Your task to perform on an android device: Show me productivity apps on the Play Store Image 0: 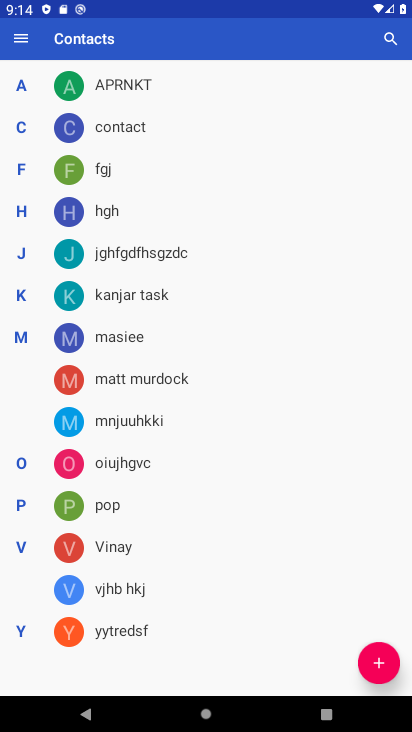
Step 0: press back button
Your task to perform on an android device: Show me productivity apps on the Play Store Image 1: 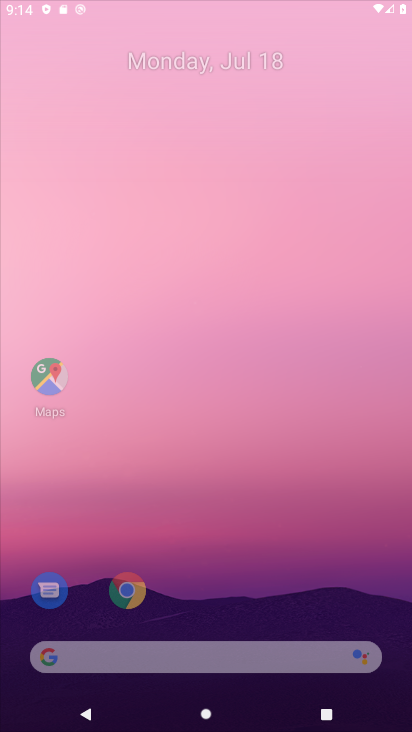
Step 1: press back button
Your task to perform on an android device: Show me productivity apps on the Play Store Image 2: 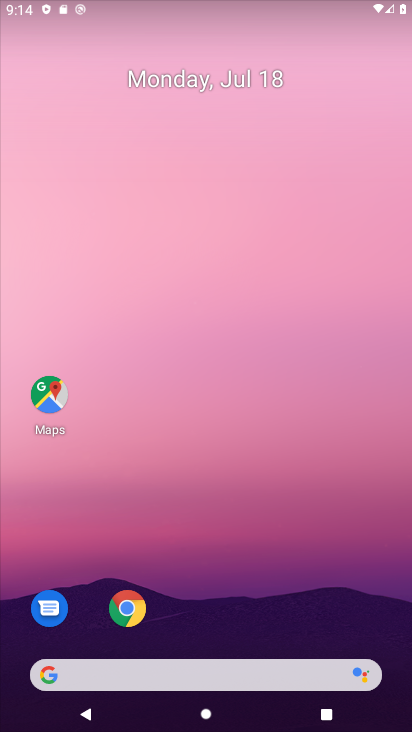
Step 2: drag from (271, 576) to (272, 201)
Your task to perform on an android device: Show me productivity apps on the Play Store Image 3: 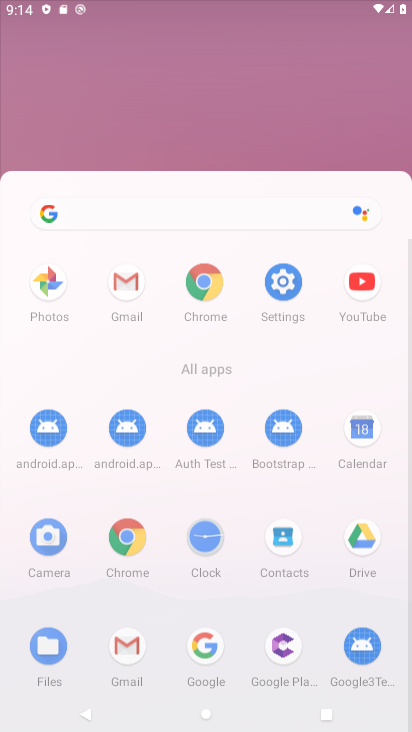
Step 3: drag from (316, 529) to (278, 266)
Your task to perform on an android device: Show me productivity apps on the Play Store Image 4: 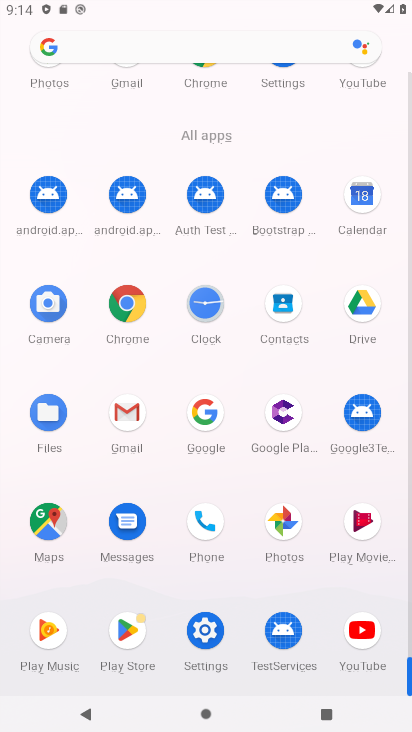
Step 4: click (126, 629)
Your task to perform on an android device: Show me productivity apps on the Play Store Image 5: 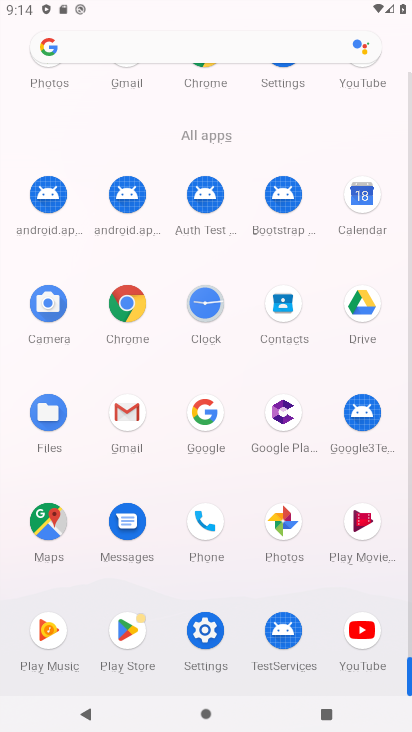
Step 5: click (126, 629)
Your task to perform on an android device: Show me productivity apps on the Play Store Image 6: 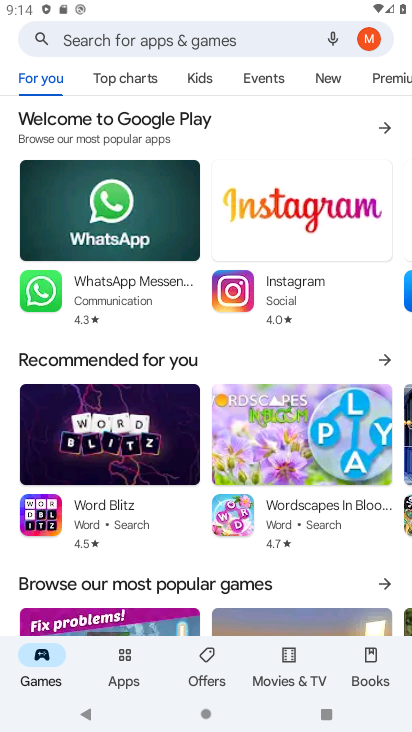
Step 6: click (221, 56)
Your task to perform on an android device: Show me productivity apps on the Play Store Image 7: 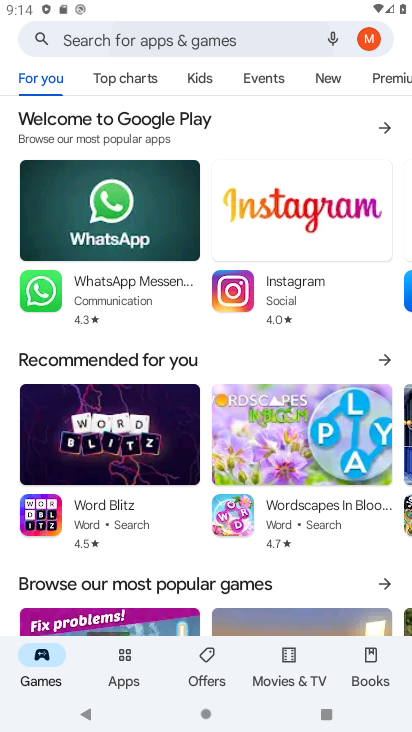
Step 7: click (221, 41)
Your task to perform on an android device: Show me productivity apps on the Play Store Image 8: 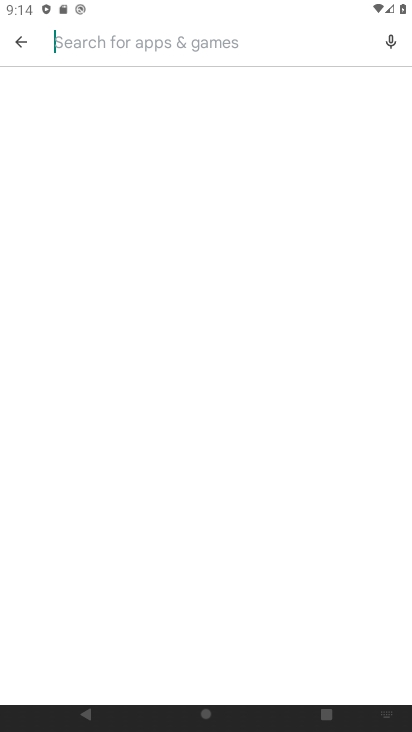
Step 8: click (221, 40)
Your task to perform on an android device: Show me productivity apps on the Play Store Image 9: 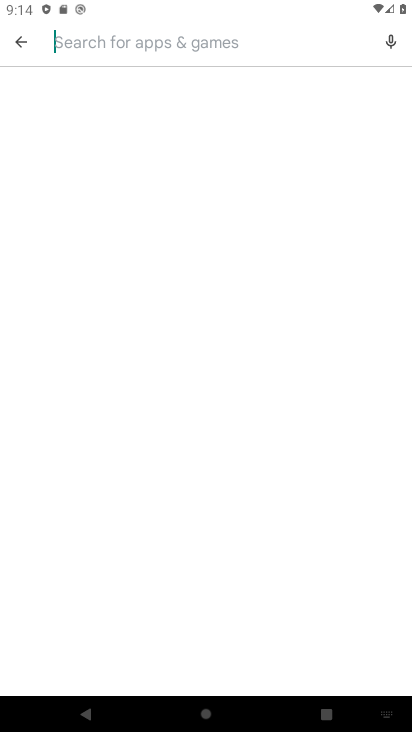
Step 9: type "productivity apps"
Your task to perform on an android device: Show me productivity apps on the Play Store Image 10: 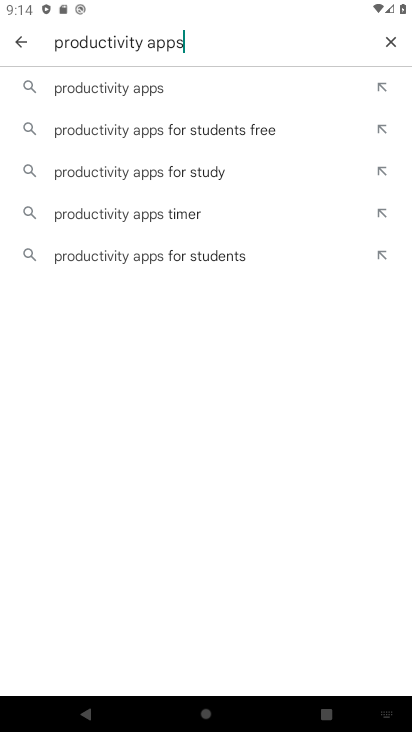
Step 10: click (109, 95)
Your task to perform on an android device: Show me productivity apps on the Play Store Image 11: 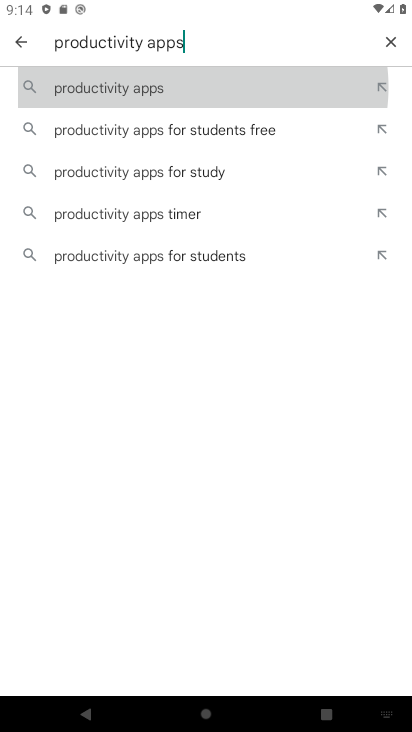
Step 11: click (104, 93)
Your task to perform on an android device: Show me productivity apps on the Play Store Image 12: 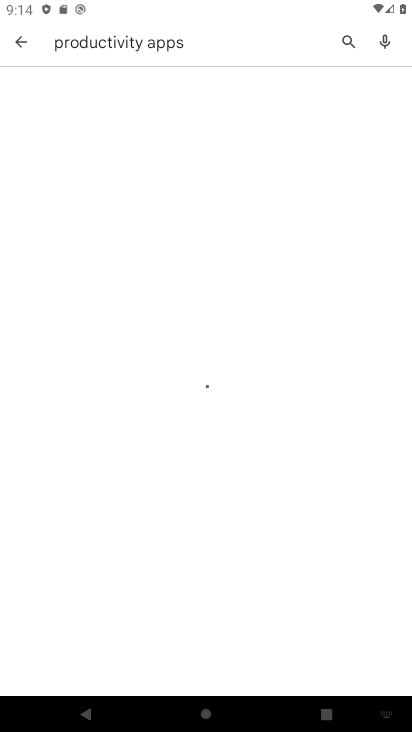
Step 12: click (104, 92)
Your task to perform on an android device: Show me productivity apps on the Play Store Image 13: 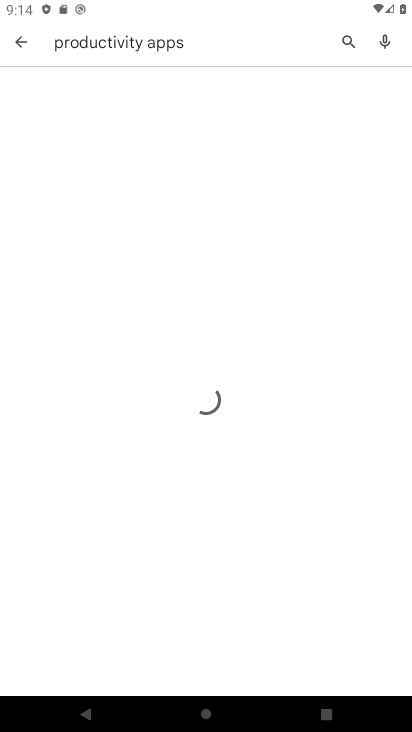
Step 13: click (105, 89)
Your task to perform on an android device: Show me productivity apps on the Play Store Image 14: 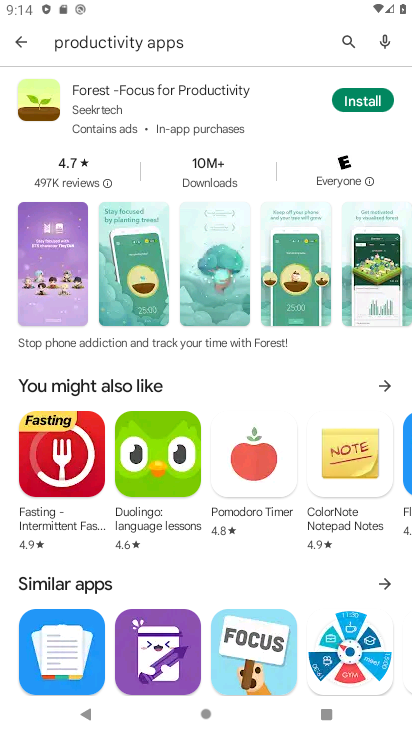
Step 14: task complete